Your task to perform on an android device: turn pop-ups on in chrome Image 0: 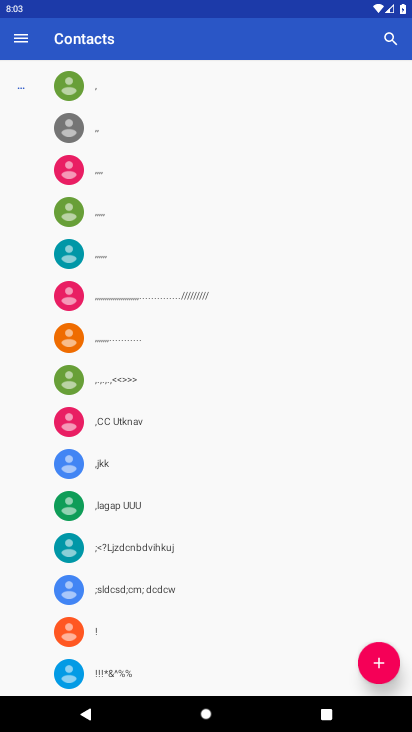
Step 0: press home button
Your task to perform on an android device: turn pop-ups on in chrome Image 1: 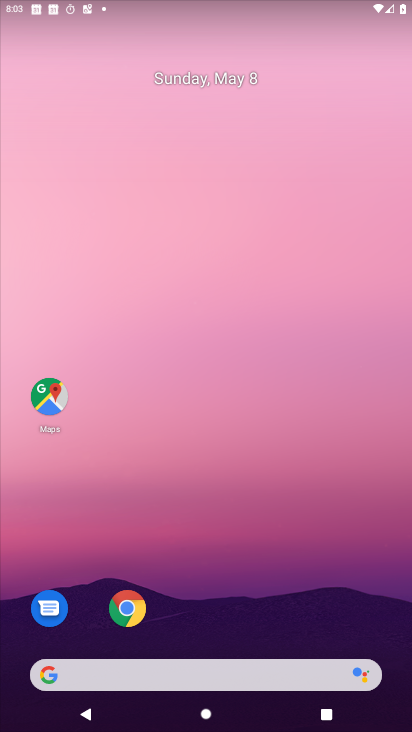
Step 1: click (126, 605)
Your task to perform on an android device: turn pop-ups on in chrome Image 2: 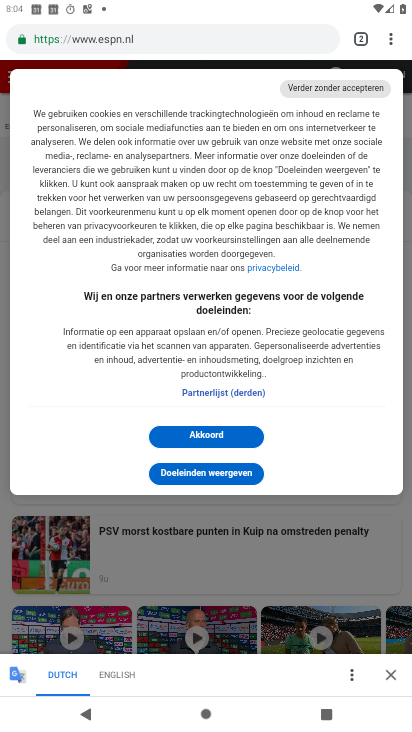
Step 2: drag from (392, 36) to (296, 471)
Your task to perform on an android device: turn pop-ups on in chrome Image 3: 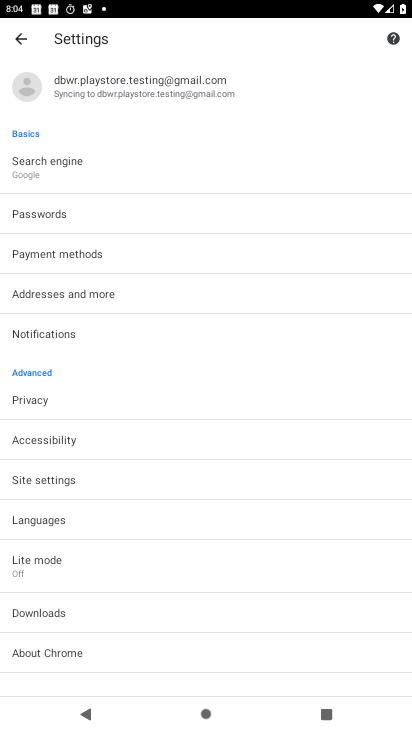
Step 3: click (44, 479)
Your task to perform on an android device: turn pop-ups on in chrome Image 4: 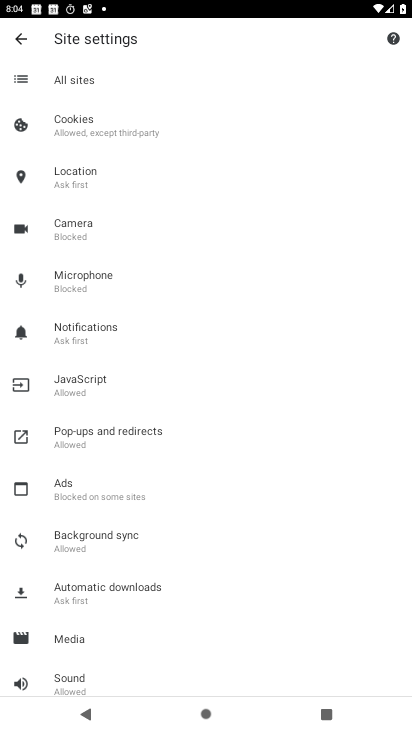
Step 4: click (79, 444)
Your task to perform on an android device: turn pop-ups on in chrome Image 5: 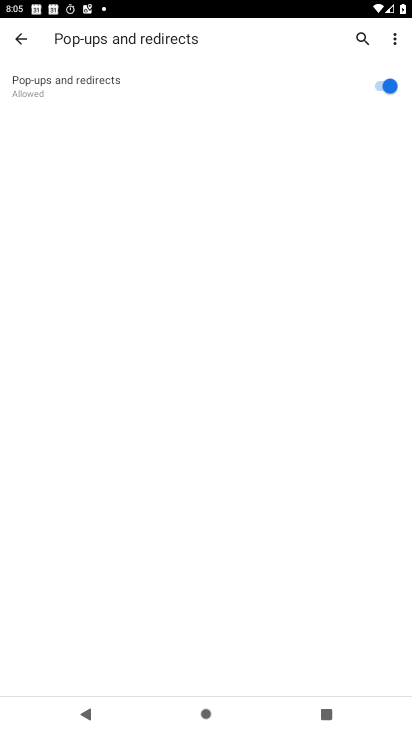
Step 5: task complete